Your task to perform on an android device: change your default location settings in chrome Image 0: 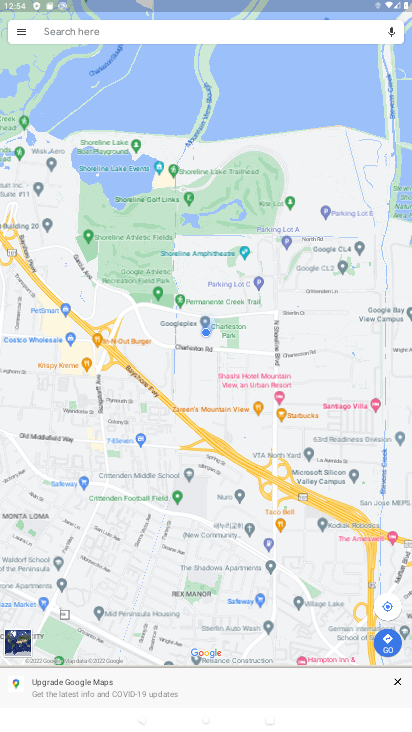
Step 0: press home button
Your task to perform on an android device: change your default location settings in chrome Image 1: 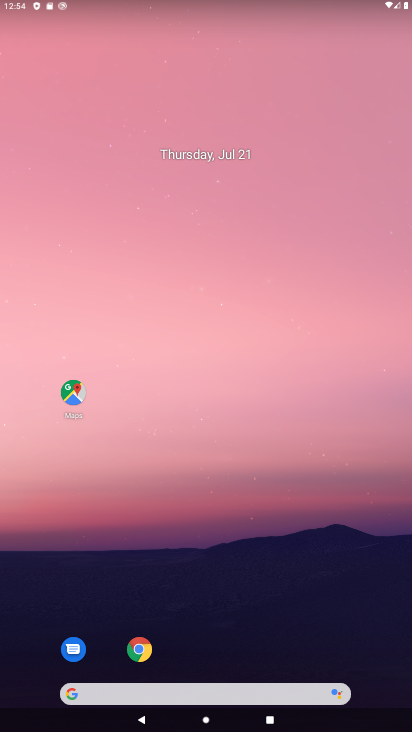
Step 1: click (139, 652)
Your task to perform on an android device: change your default location settings in chrome Image 2: 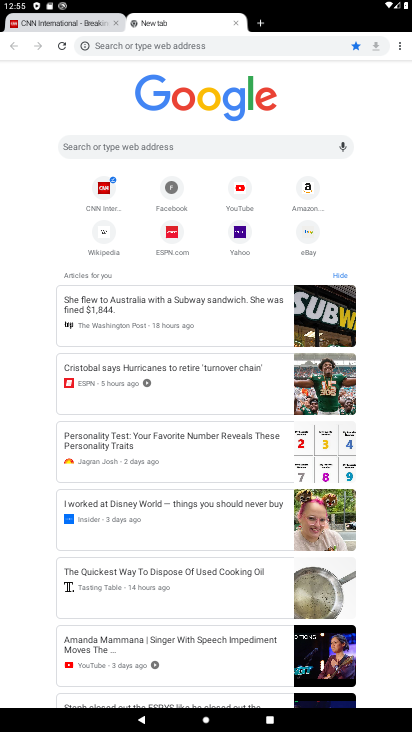
Step 2: click (402, 49)
Your task to perform on an android device: change your default location settings in chrome Image 3: 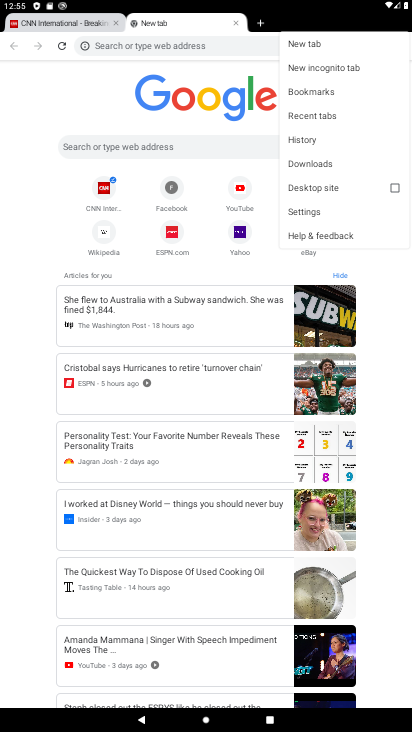
Step 3: click (331, 211)
Your task to perform on an android device: change your default location settings in chrome Image 4: 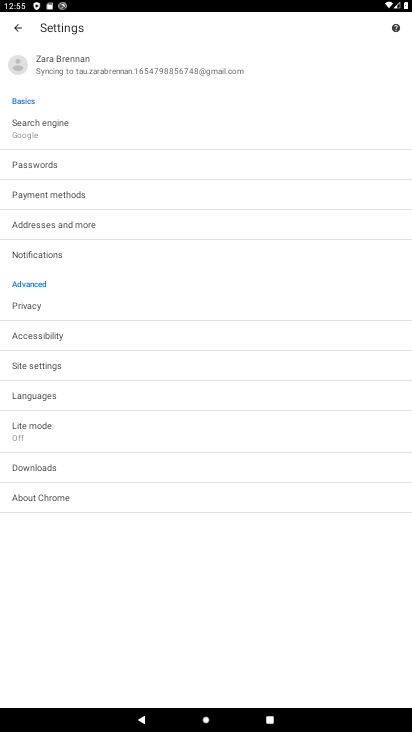
Step 4: click (158, 134)
Your task to perform on an android device: change your default location settings in chrome Image 5: 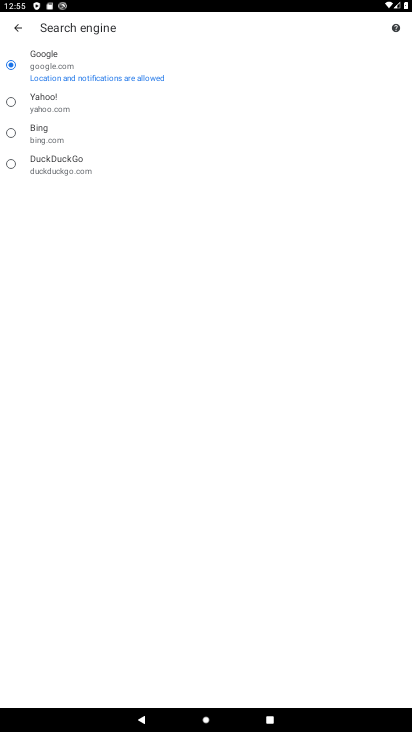
Step 5: click (81, 101)
Your task to perform on an android device: change your default location settings in chrome Image 6: 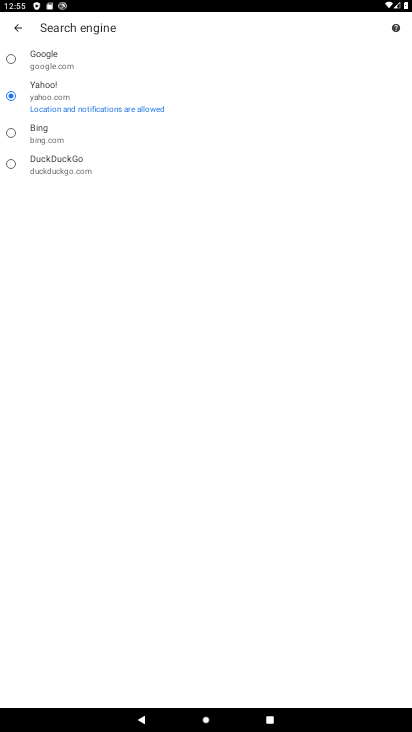
Step 6: task complete